Your task to perform on an android device: Toggle the flashlight Image 0: 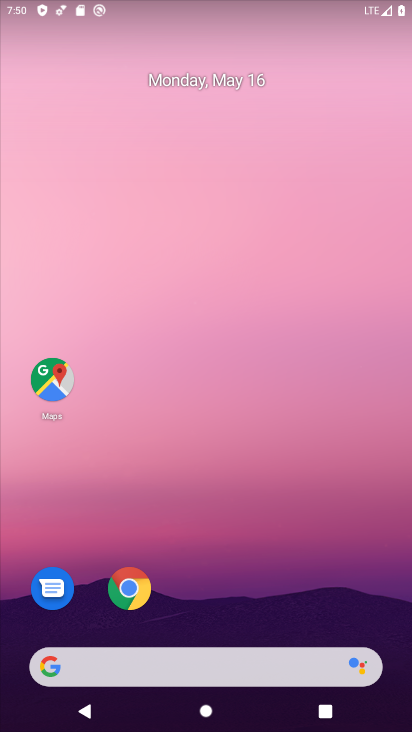
Step 0: drag from (285, 67) to (216, 632)
Your task to perform on an android device: Toggle the flashlight Image 1: 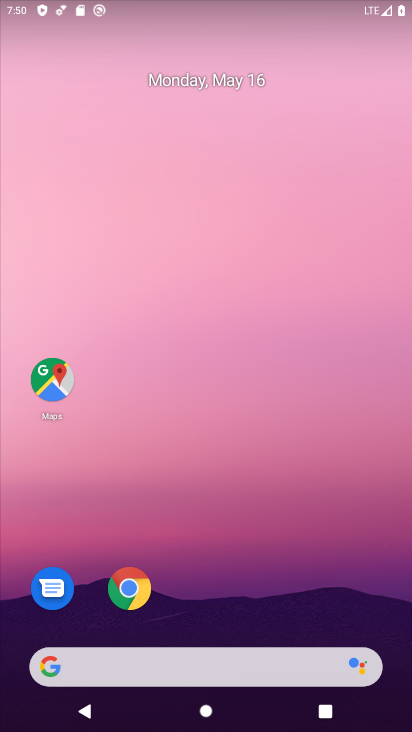
Step 1: drag from (229, 0) to (215, 364)
Your task to perform on an android device: Toggle the flashlight Image 2: 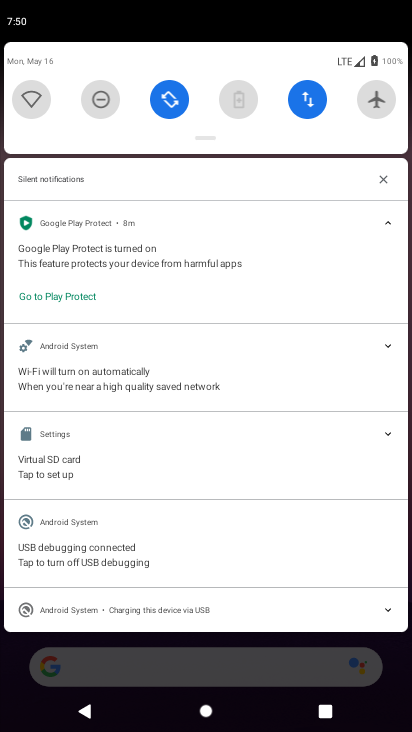
Step 2: drag from (297, 127) to (213, 492)
Your task to perform on an android device: Toggle the flashlight Image 3: 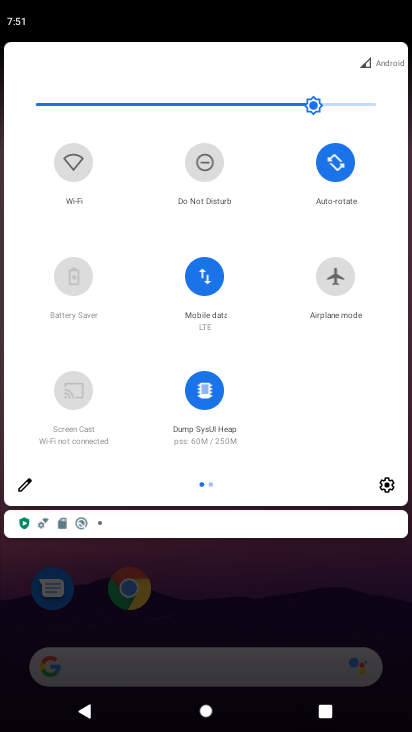
Step 3: drag from (280, 304) to (0, 264)
Your task to perform on an android device: Toggle the flashlight Image 4: 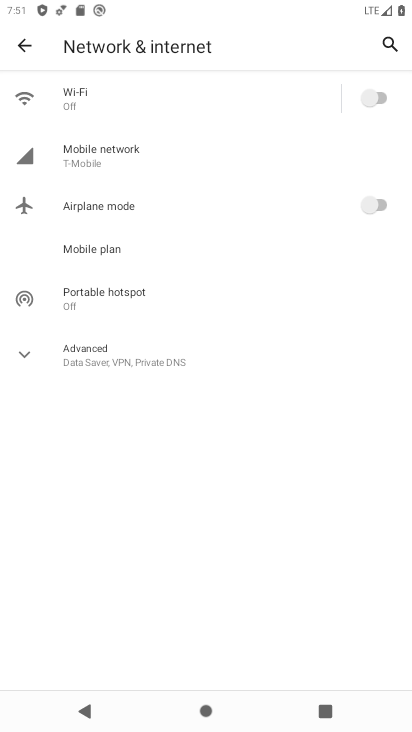
Step 4: click (11, 46)
Your task to perform on an android device: Toggle the flashlight Image 5: 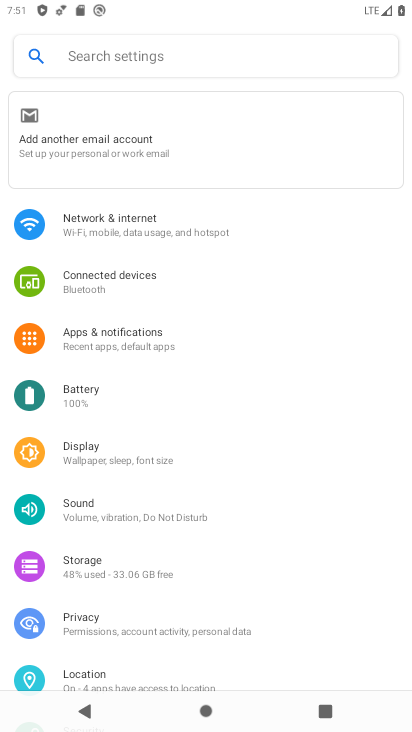
Step 5: click (107, 457)
Your task to perform on an android device: Toggle the flashlight Image 6: 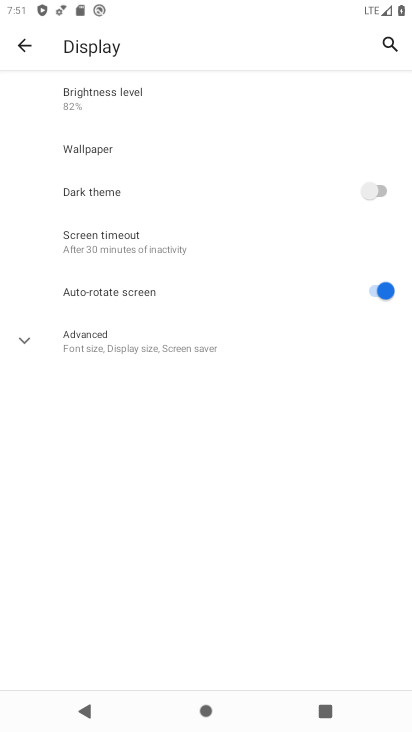
Step 6: task complete